Your task to perform on an android device: find photos in the google photos app Image 0: 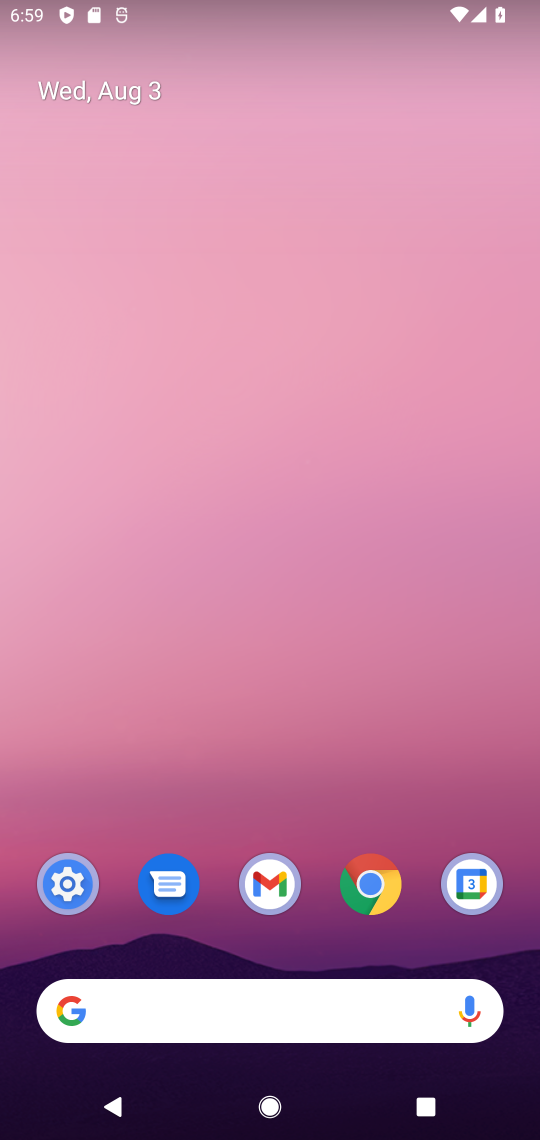
Step 0: drag from (314, 722) to (315, 29)
Your task to perform on an android device: find photos in the google photos app Image 1: 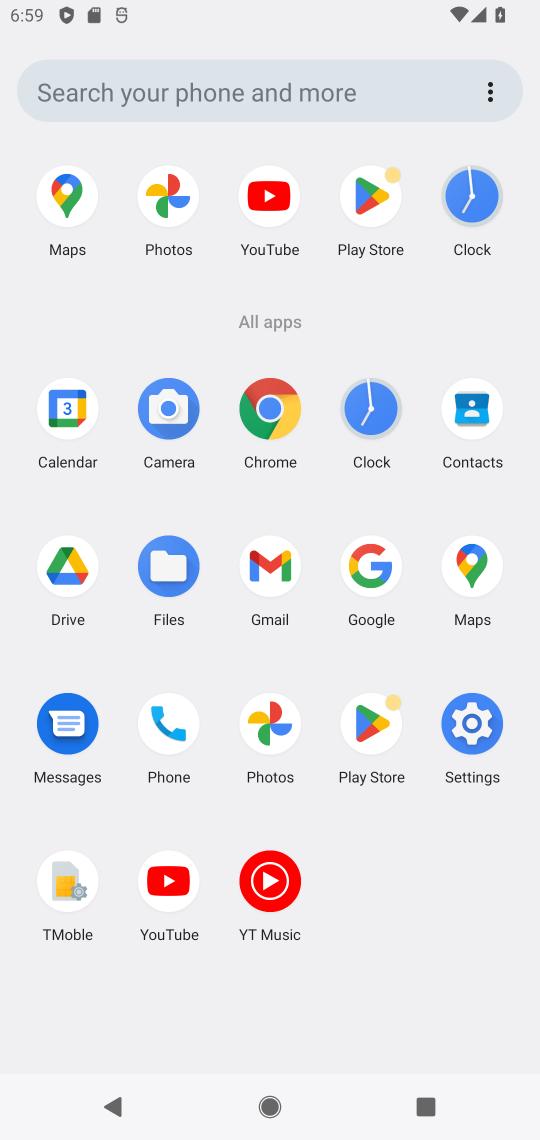
Step 1: click (179, 199)
Your task to perform on an android device: find photos in the google photos app Image 2: 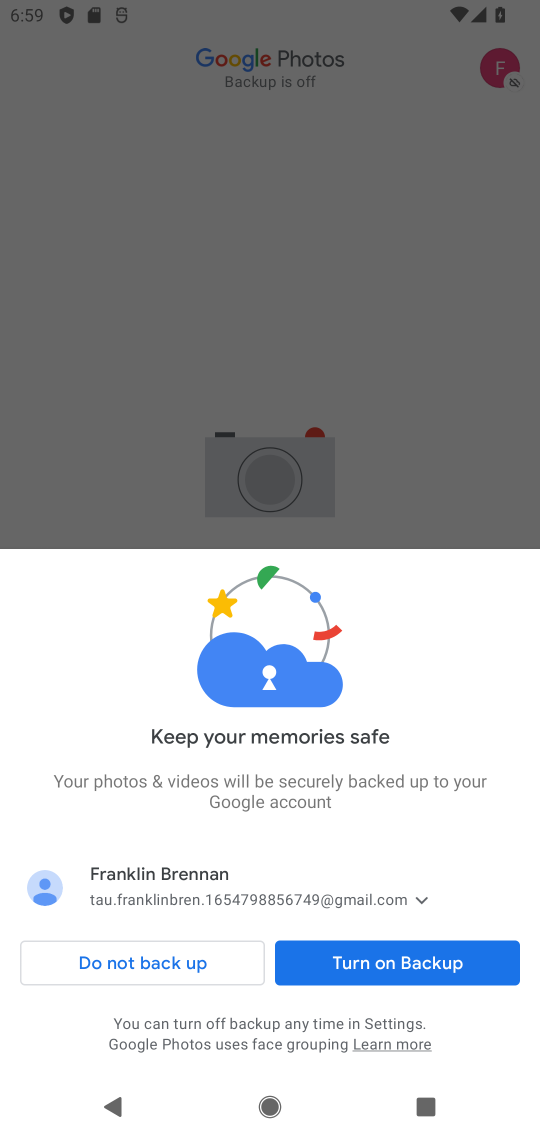
Step 2: click (211, 977)
Your task to perform on an android device: find photos in the google photos app Image 3: 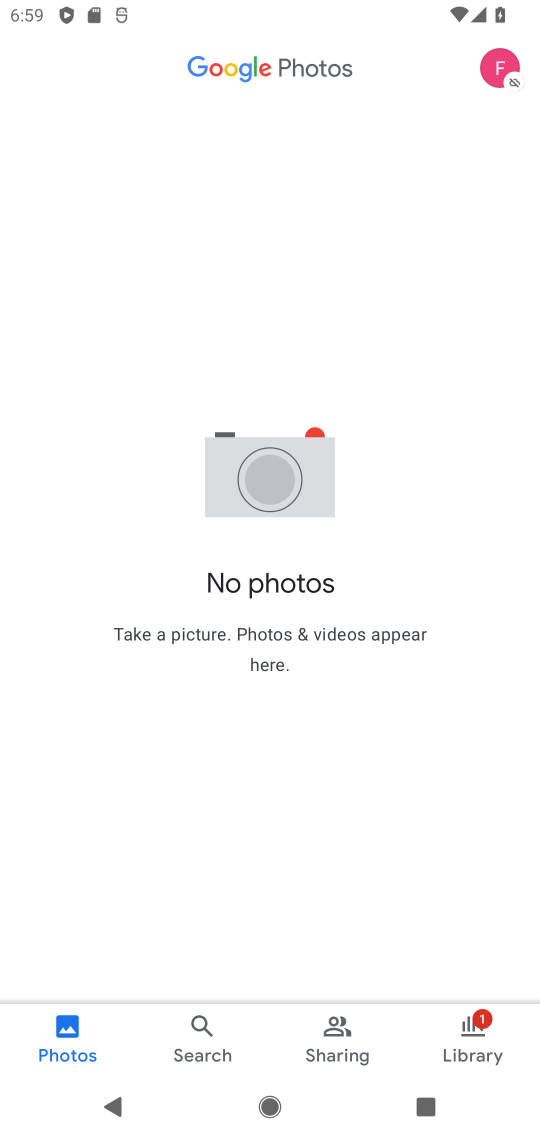
Step 3: task complete